Your task to perform on an android device: Search for sushi restaurants on Maps Image 0: 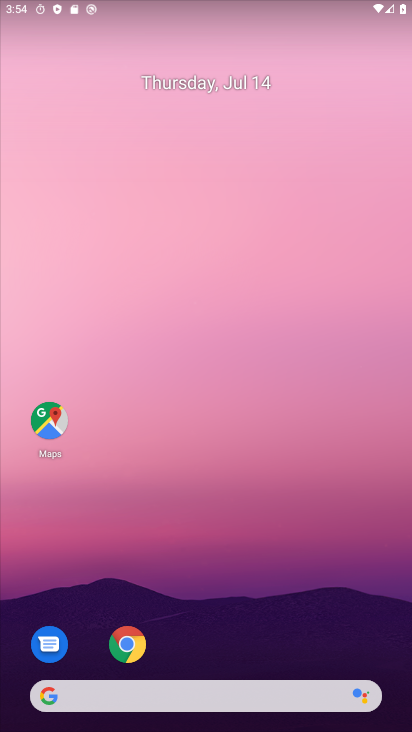
Step 0: click (40, 420)
Your task to perform on an android device: Search for sushi restaurants on Maps Image 1: 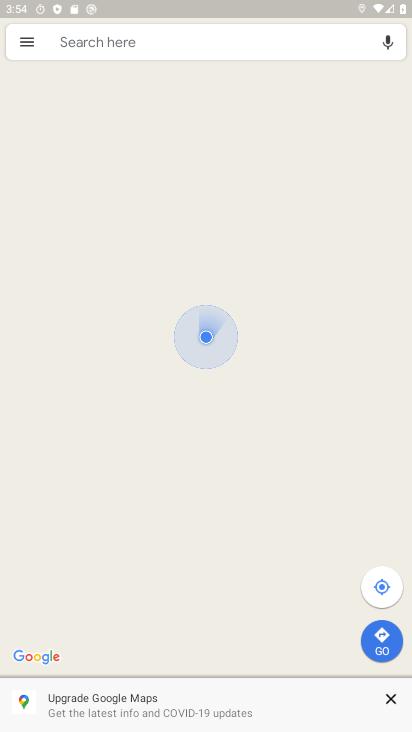
Step 1: click (97, 43)
Your task to perform on an android device: Search for sushi restaurants on Maps Image 2: 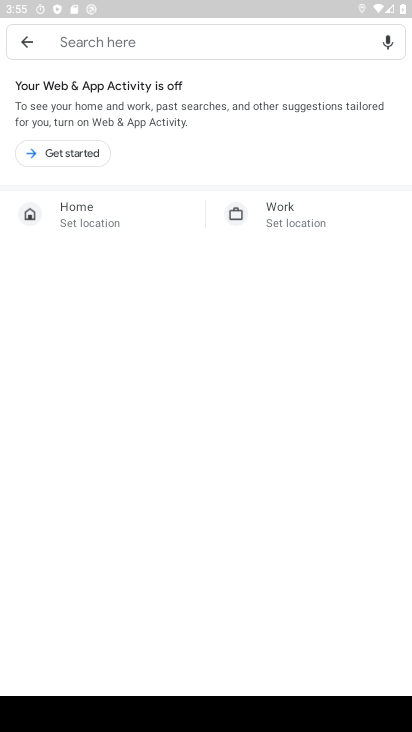
Step 2: type "sushi restaurants"
Your task to perform on an android device: Search for sushi restaurants on Maps Image 3: 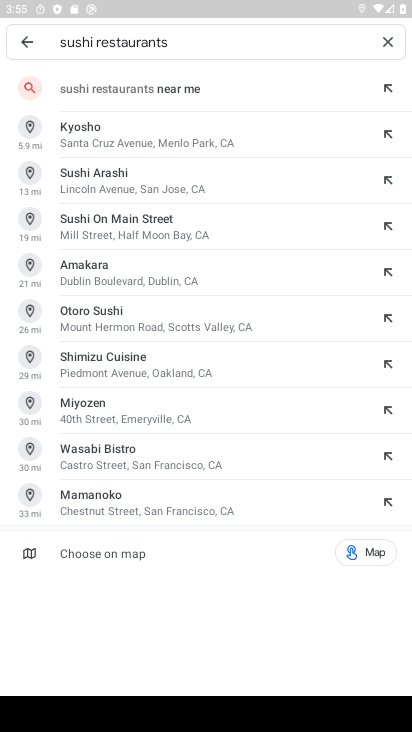
Step 3: click (125, 97)
Your task to perform on an android device: Search for sushi restaurants on Maps Image 4: 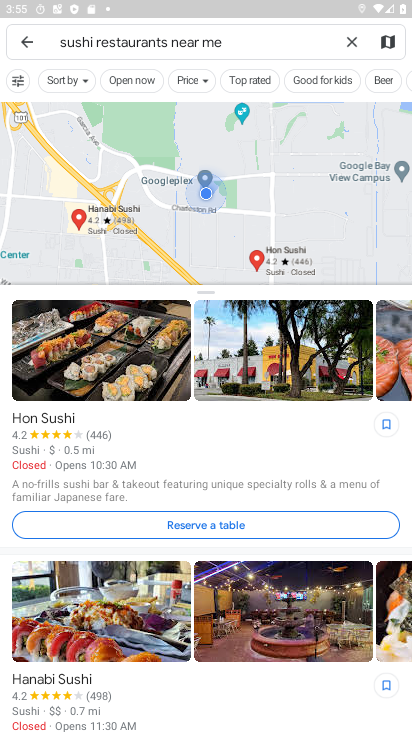
Step 4: task complete